Your task to perform on an android device: Open sound settings Image 0: 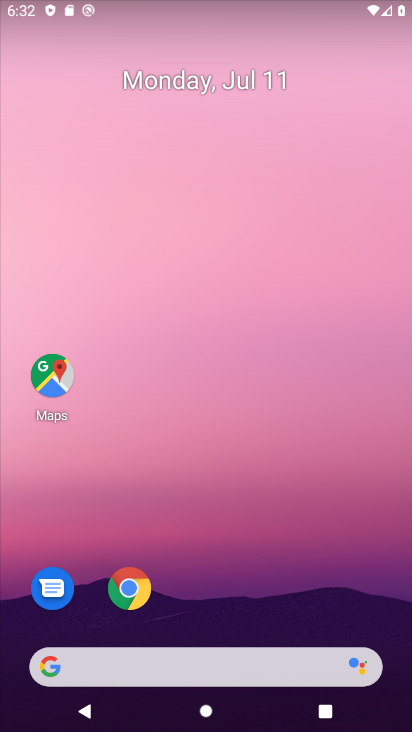
Step 0: drag from (352, 614) to (238, 69)
Your task to perform on an android device: Open sound settings Image 1: 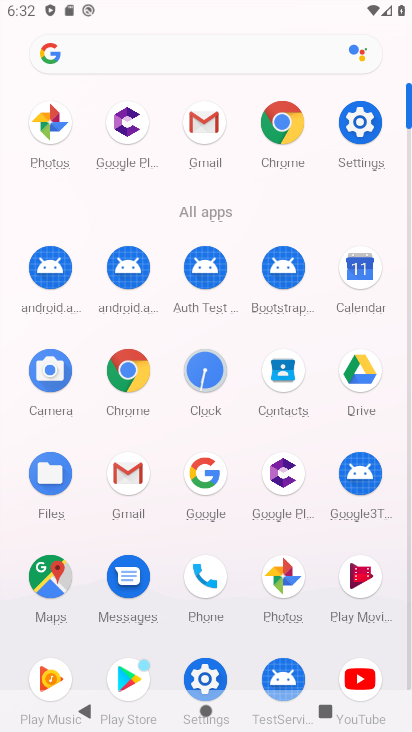
Step 1: click (190, 680)
Your task to perform on an android device: Open sound settings Image 2: 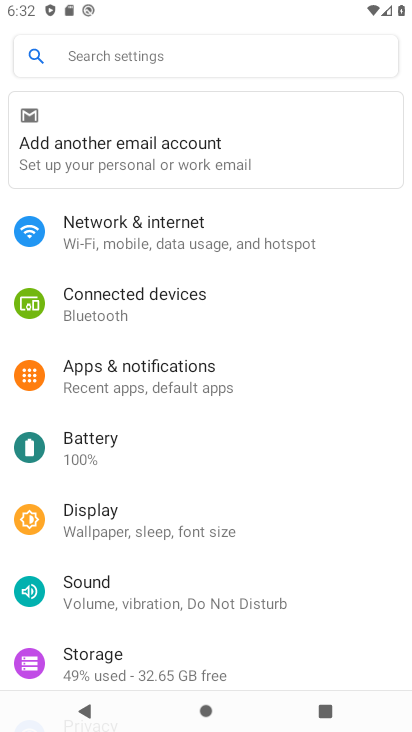
Step 2: click (92, 600)
Your task to perform on an android device: Open sound settings Image 3: 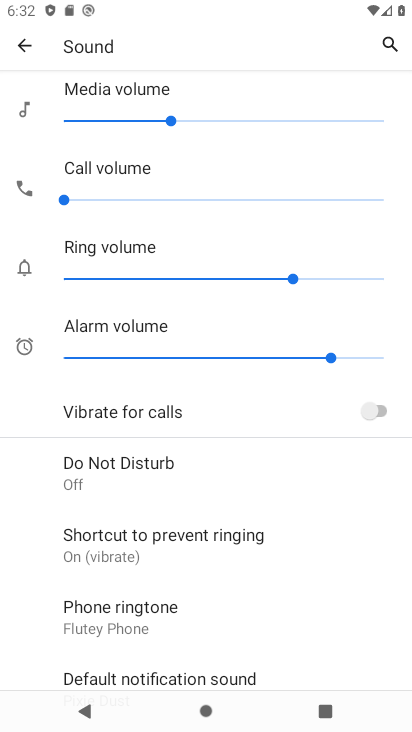
Step 3: task complete